Your task to perform on an android device: change notifications settings Image 0: 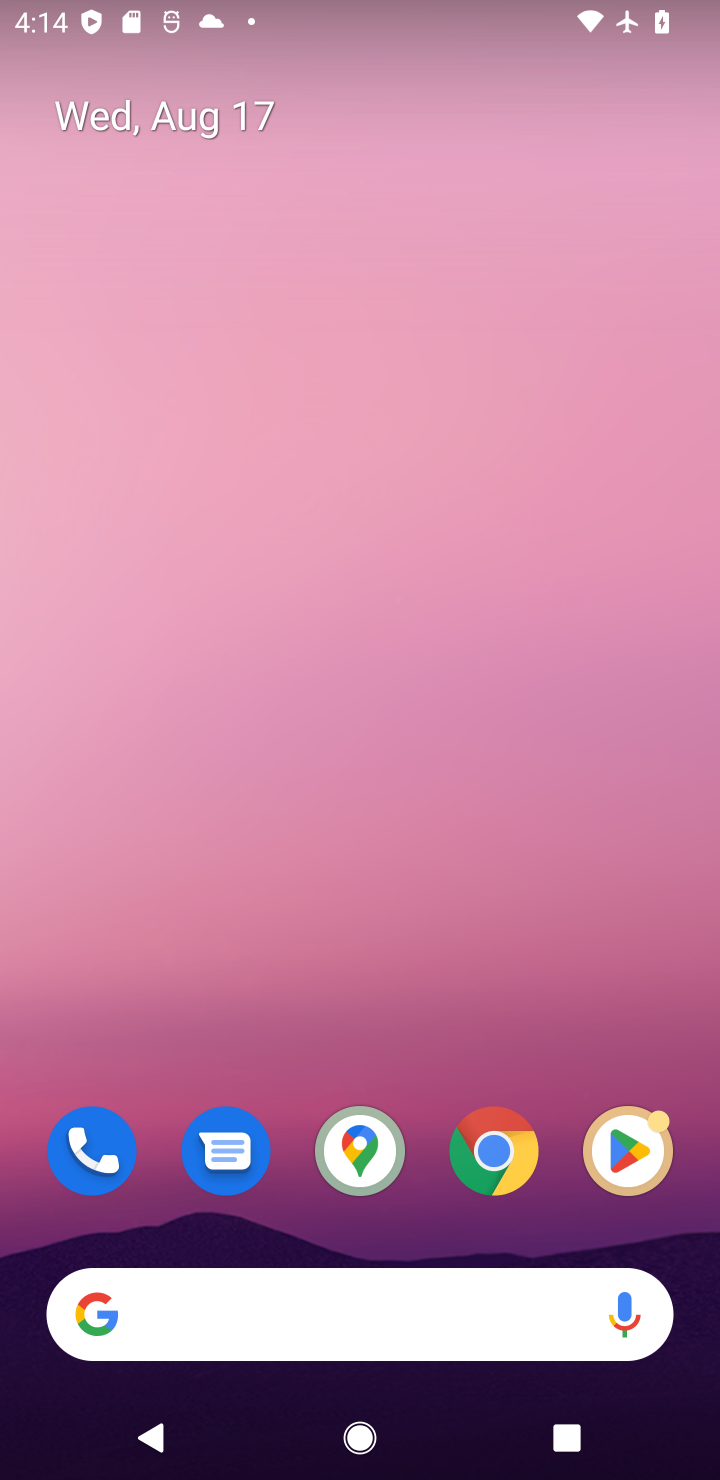
Step 0: drag from (458, 1192) to (481, 528)
Your task to perform on an android device: change notifications settings Image 1: 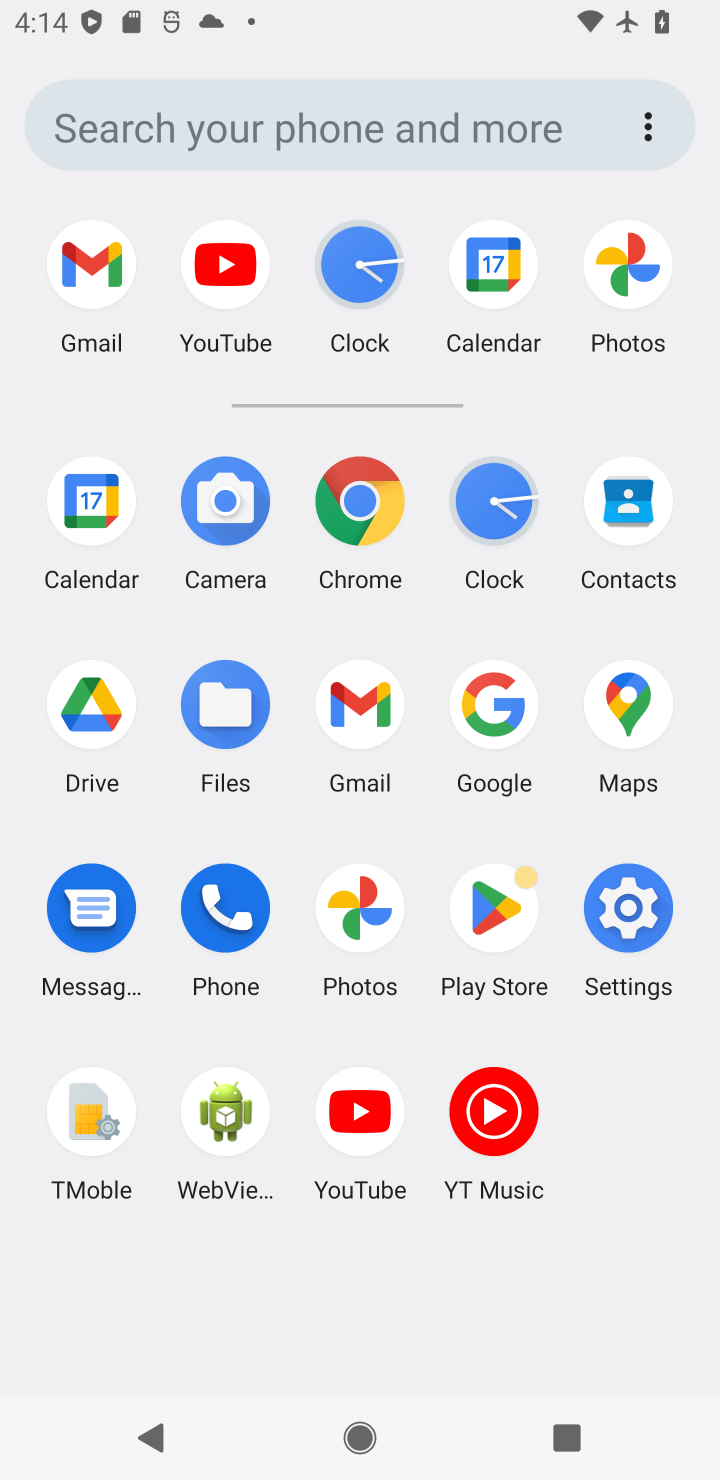
Step 1: click (615, 946)
Your task to perform on an android device: change notifications settings Image 2: 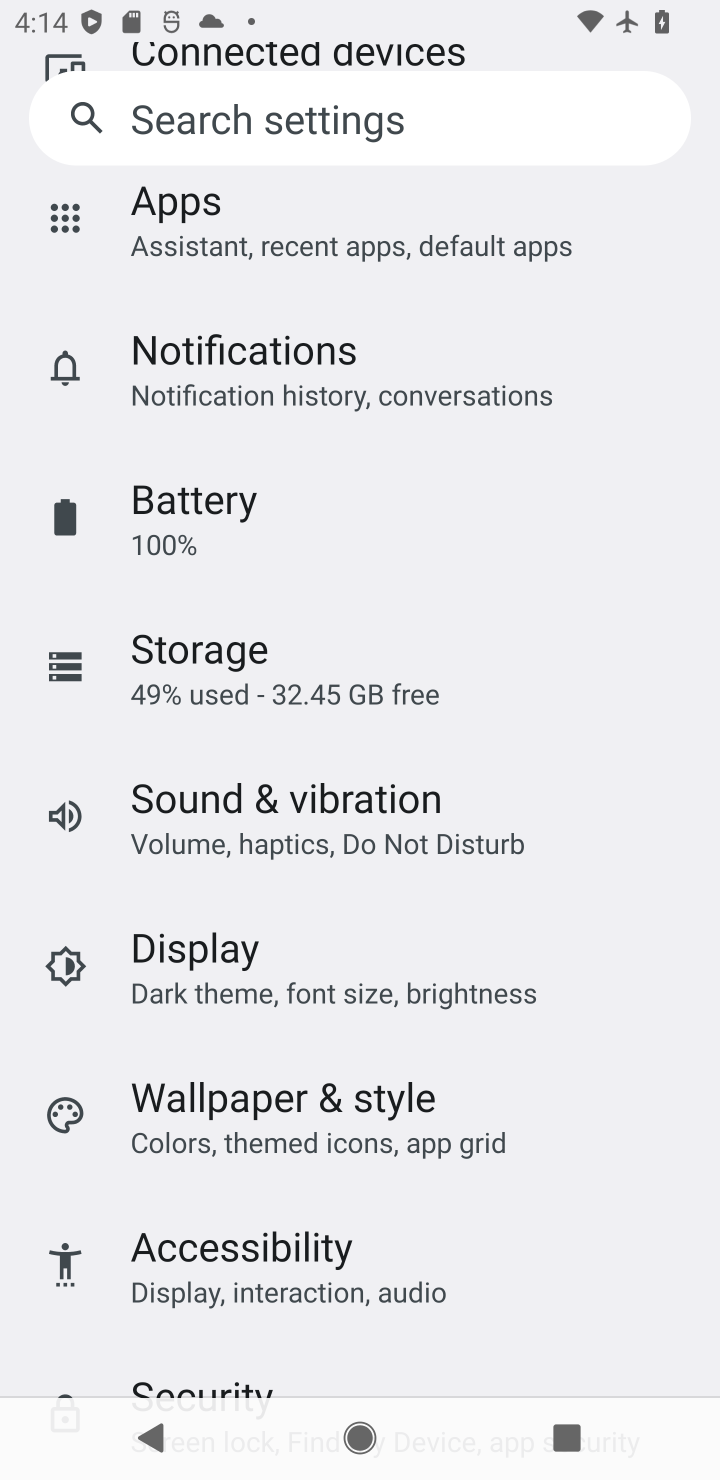
Step 2: click (322, 382)
Your task to perform on an android device: change notifications settings Image 3: 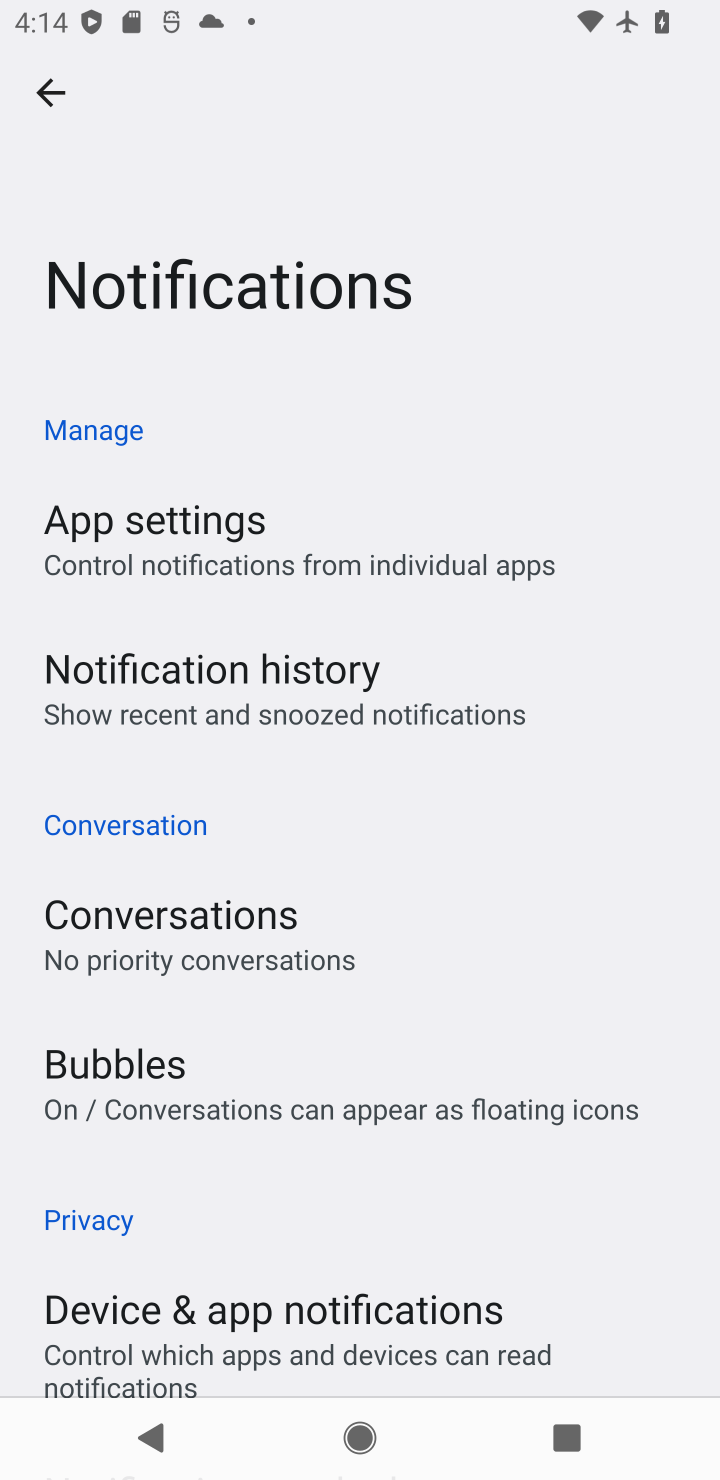
Step 3: click (211, 523)
Your task to perform on an android device: change notifications settings Image 4: 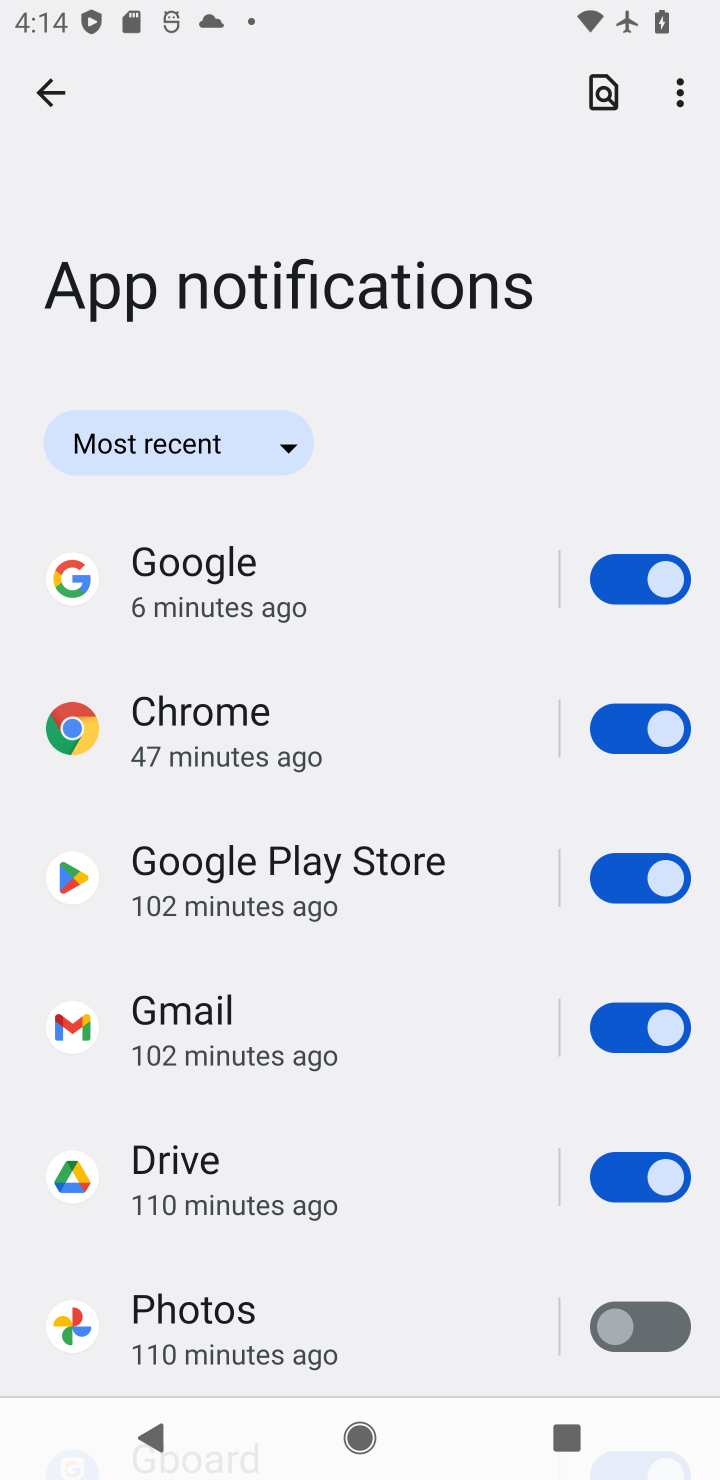
Step 4: click (610, 559)
Your task to perform on an android device: change notifications settings Image 5: 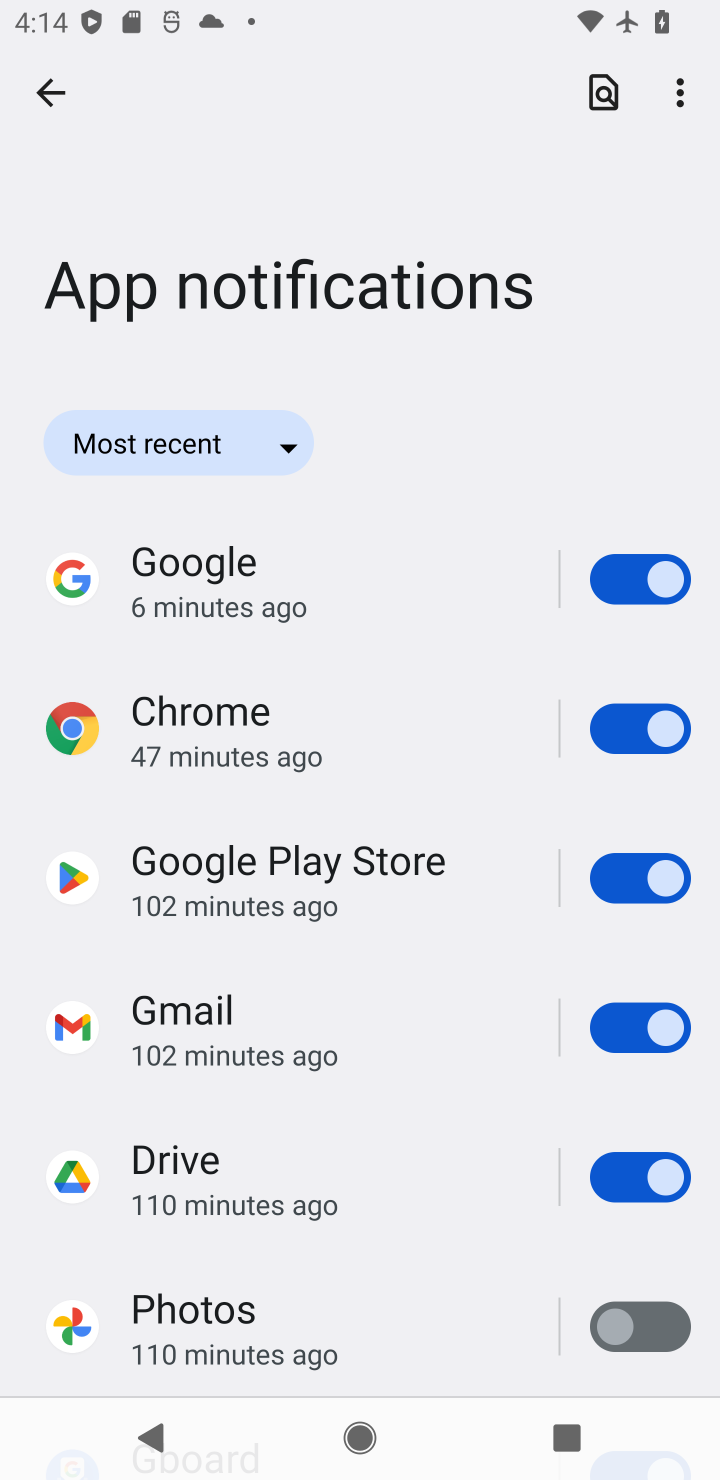
Step 5: click (626, 696)
Your task to perform on an android device: change notifications settings Image 6: 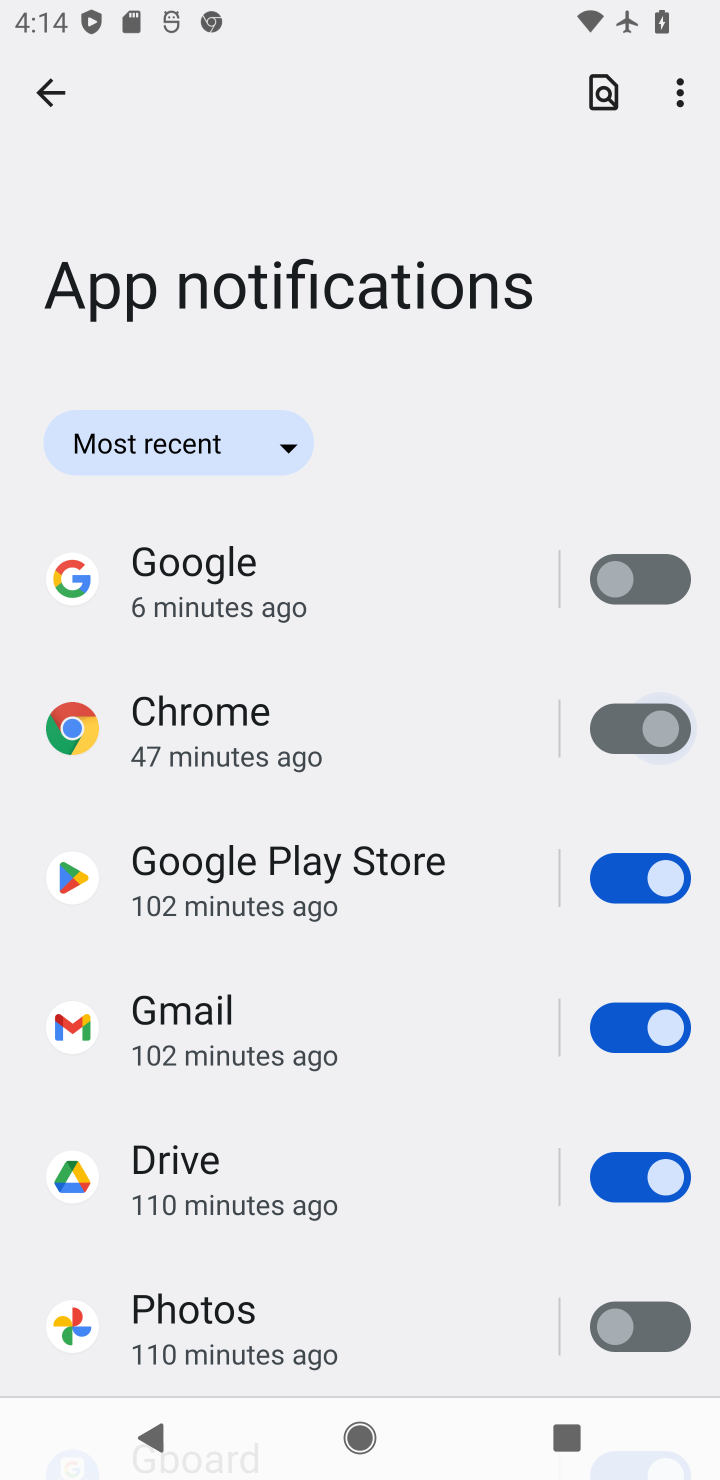
Step 6: click (639, 913)
Your task to perform on an android device: change notifications settings Image 7: 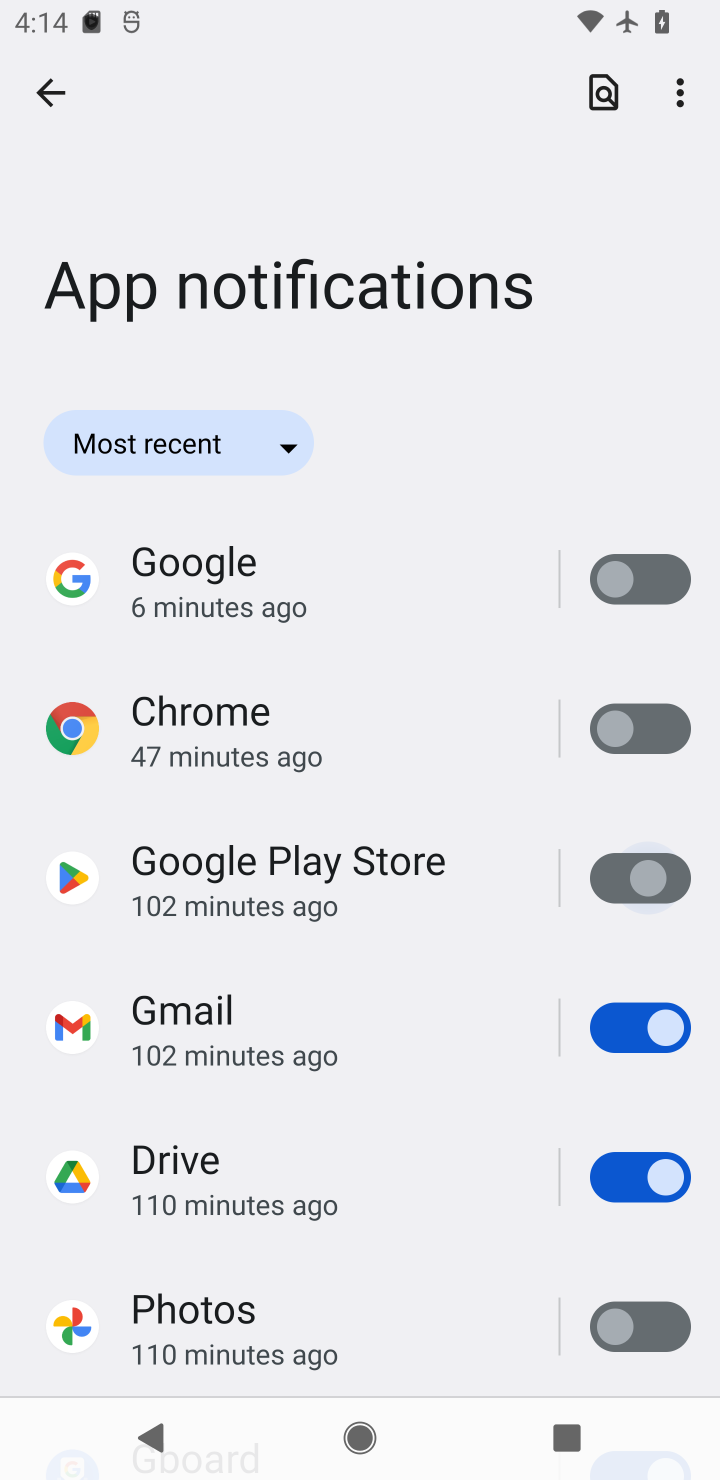
Step 7: click (643, 1034)
Your task to perform on an android device: change notifications settings Image 8: 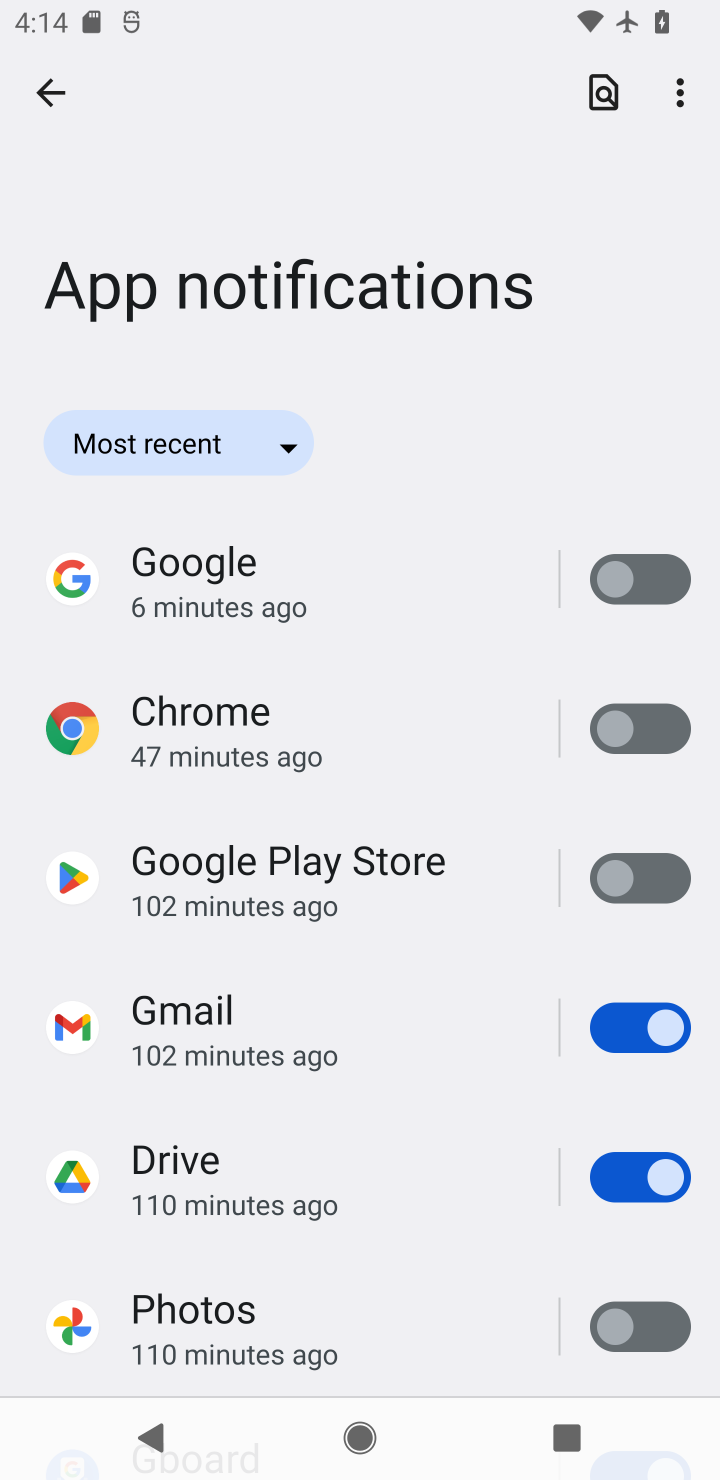
Step 8: click (647, 1163)
Your task to perform on an android device: change notifications settings Image 9: 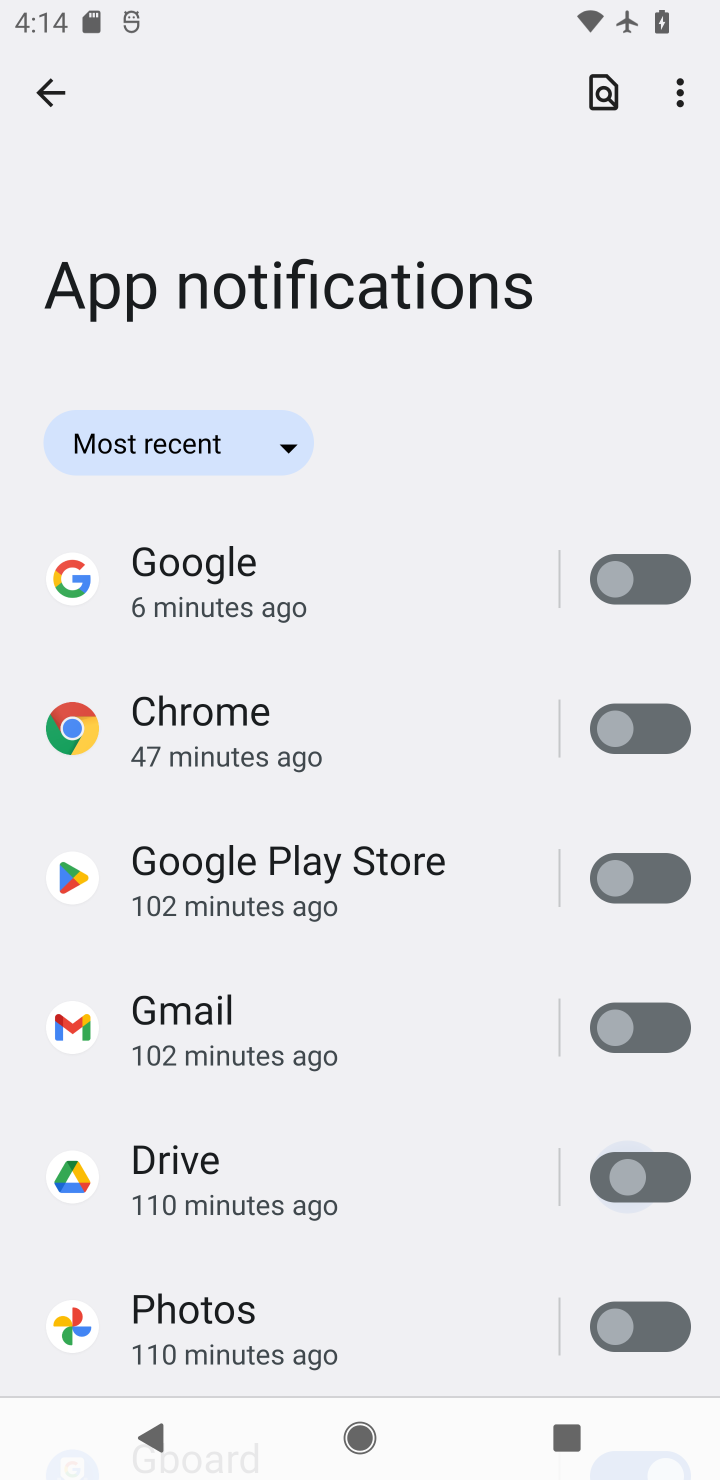
Step 9: drag from (528, 1115) to (530, 307)
Your task to perform on an android device: change notifications settings Image 10: 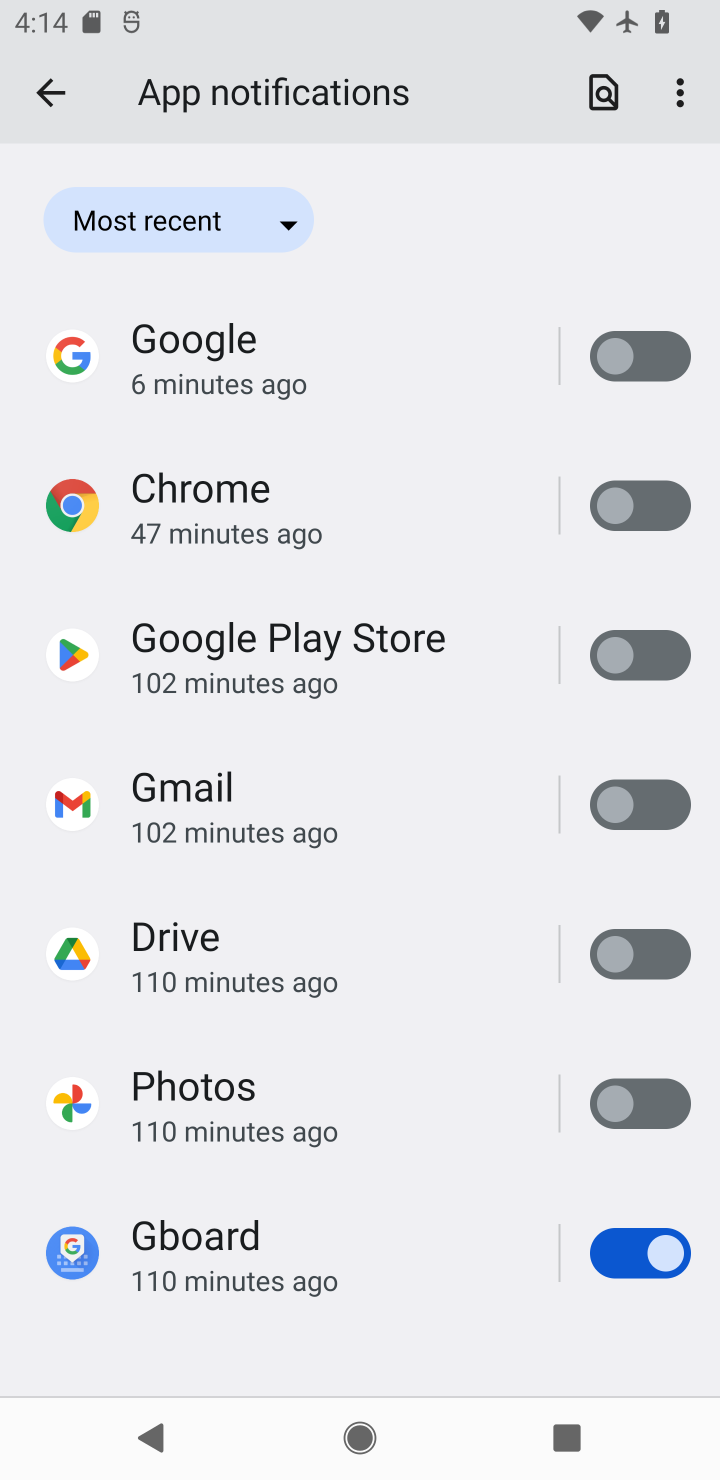
Step 10: click (645, 1236)
Your task to perform on an android device: change notifications settings Image 11: 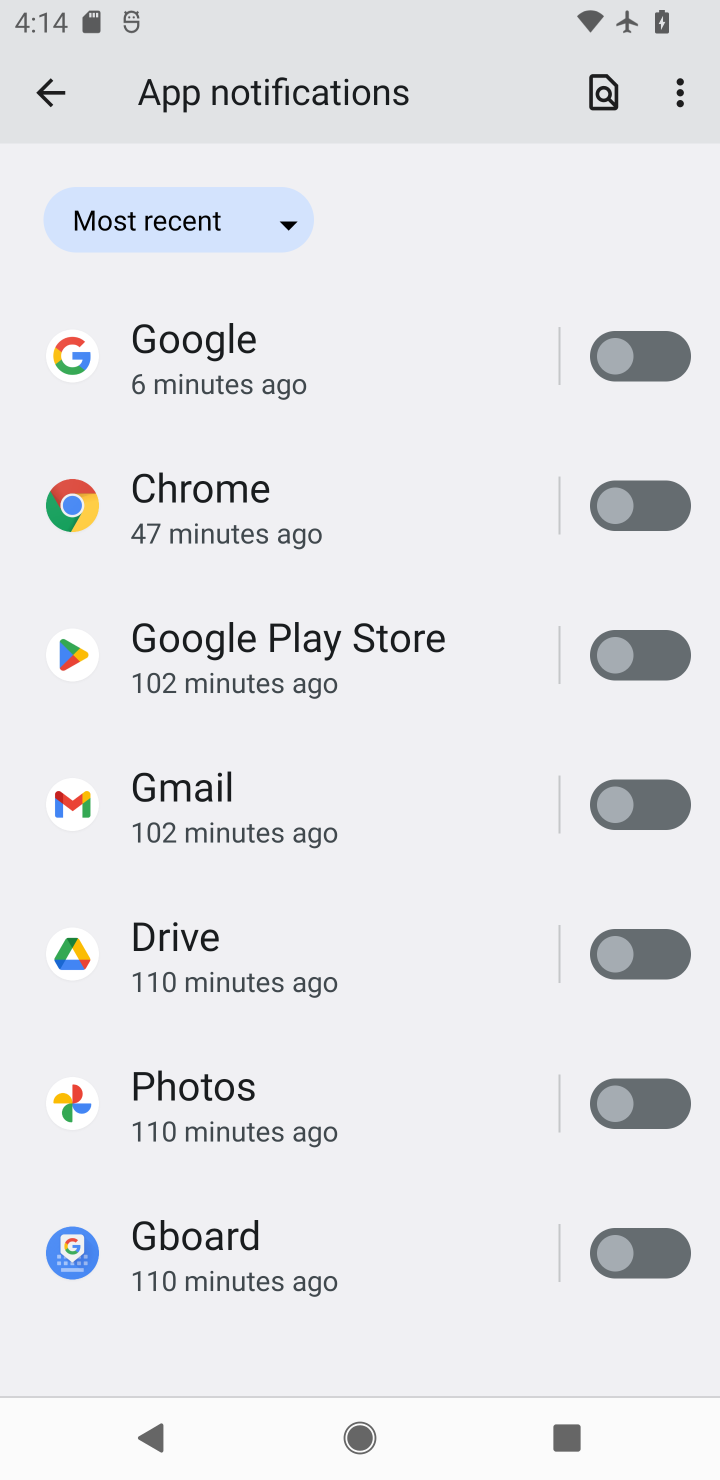
Step 11: task complete